Your task to perform on an android device: turn off location history Image 0: 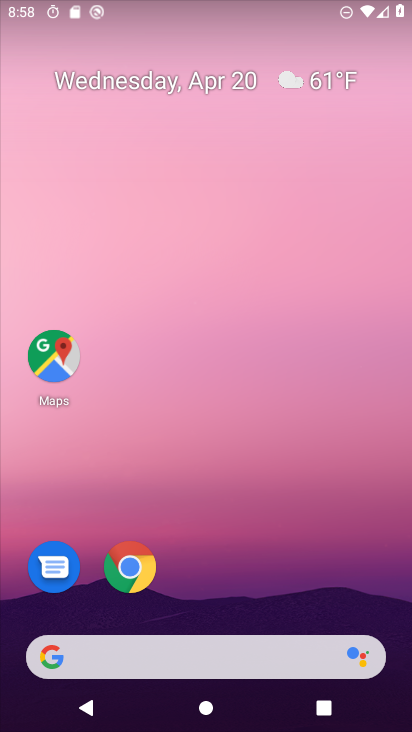
Step 0: drag from (349, 593) to (364, 552)
Your task to perform on an android device: turn off location history Image 1: 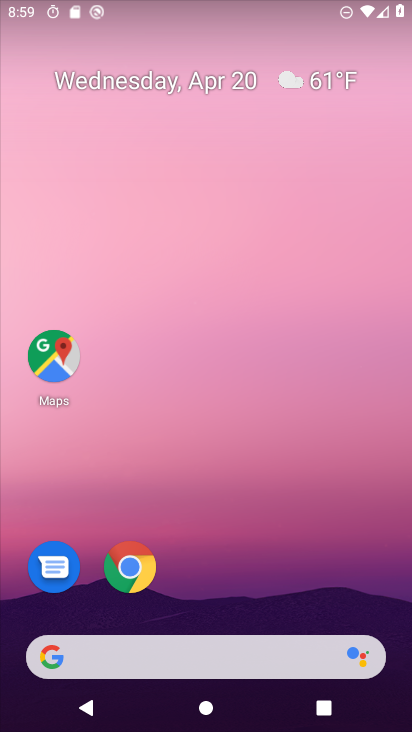
Step 1: click (37, 355)
Your task to perform on an android device: turn off location history Image 2: 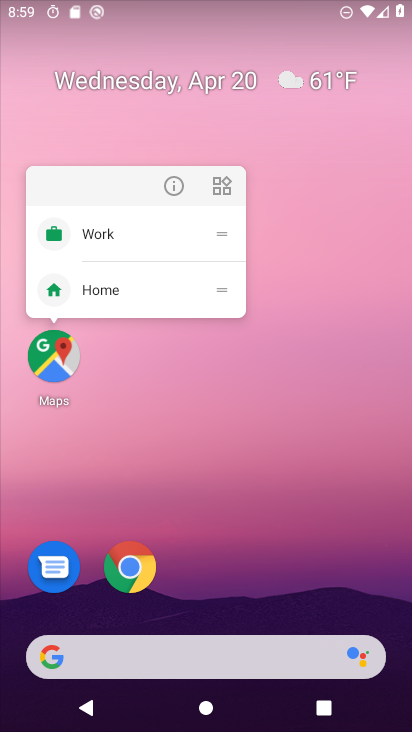
Step 2: click (37, 355)
Your task to perform on an android device: turn off location history Image 3: 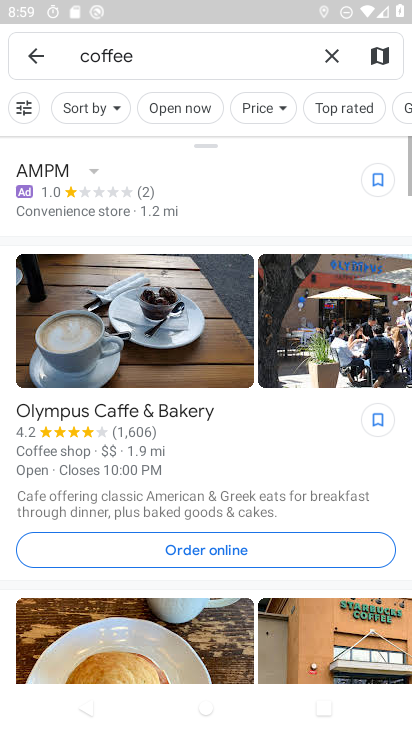
Step 3: click (326, 57)
Your task to perform on an android device: turn off location history Image 4: 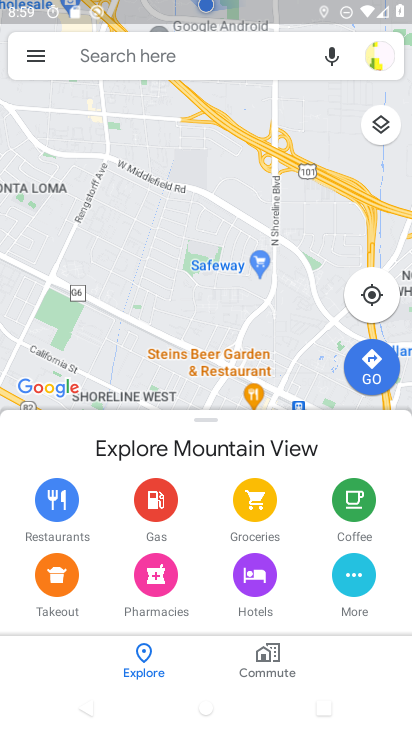
Step 4: click (41, 62)
Your task to perform on an android device: turn off location history Image 5: 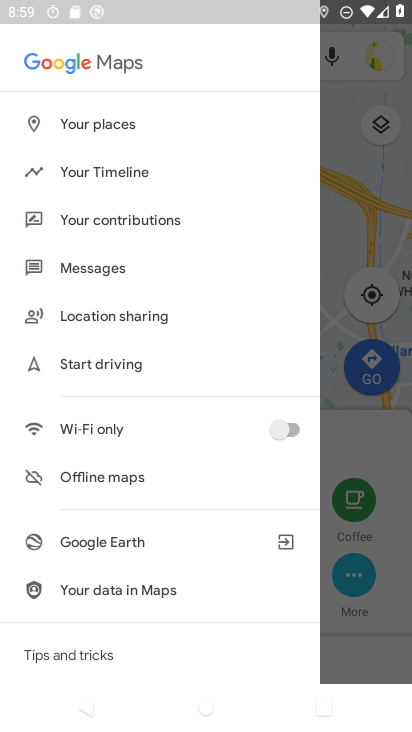
Step 5: click (128, 179)
Your task to perform on an android device: turn off location history Image 6: 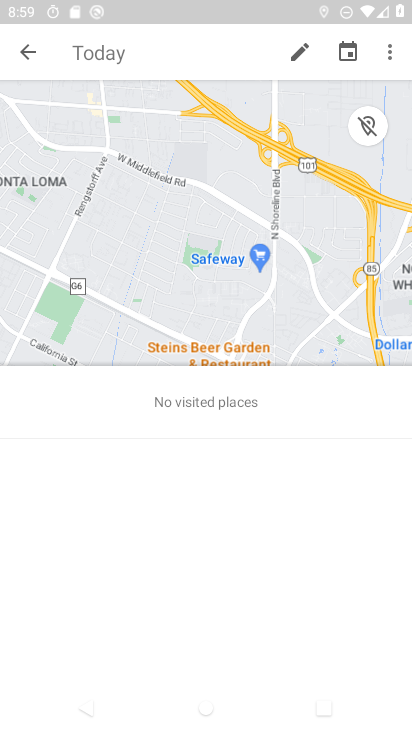
Step 6: click (384, 55)
Your task to perform on an android device: turn off location history Image 7: 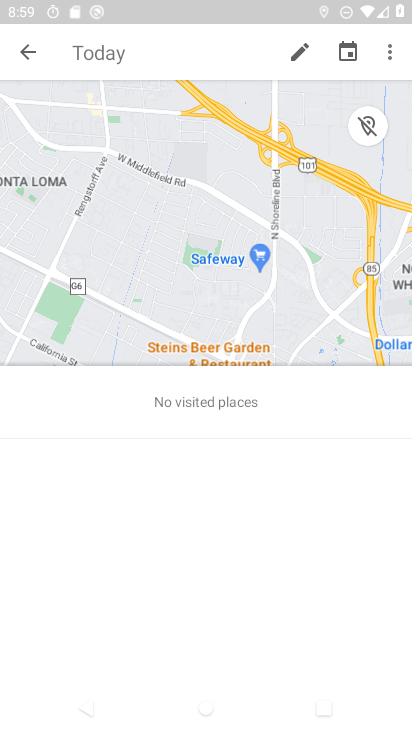
Step 7: click (384, 55)
Your task to perform on an android device: turn off location history Image 8: 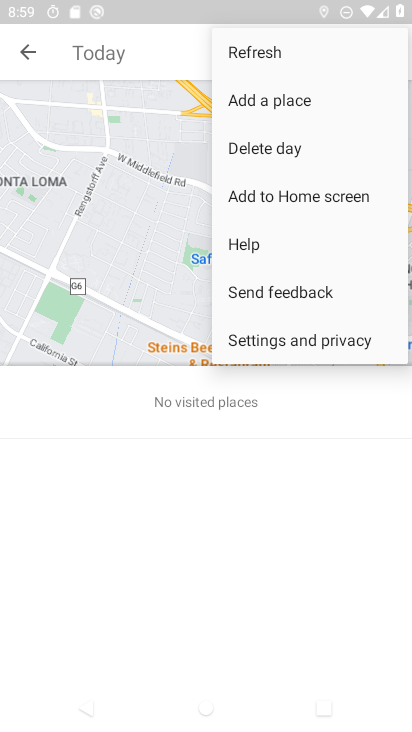
Step 8: click (272, 356)
Your task to perform on an android device: turn off location history Image 9: 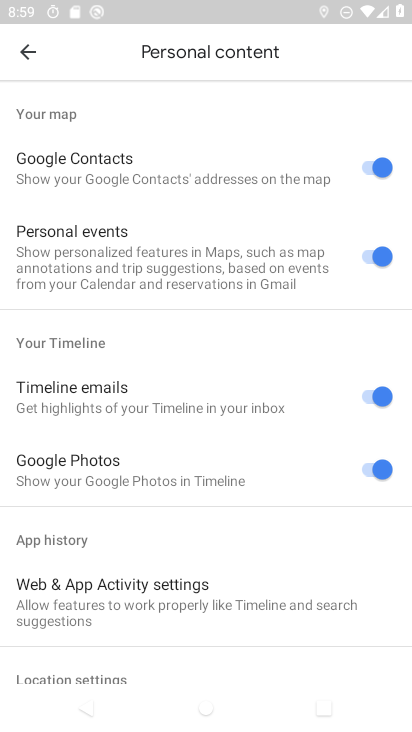
Step 9: drag from (211, 542) to (213, 269)
Your task to perform on an android device: turn off location history Image 10: 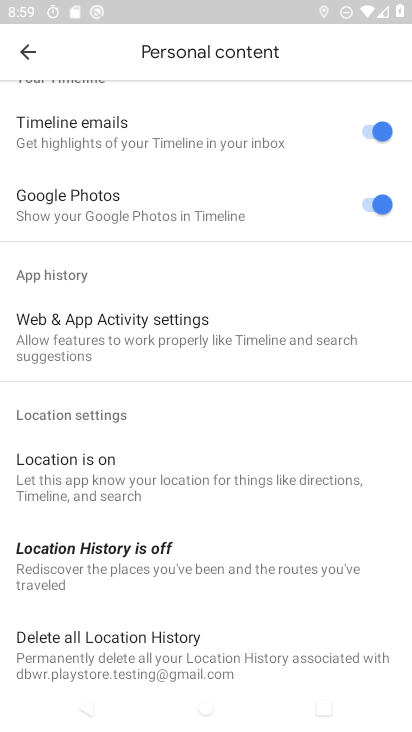
Step 10: click (121, 559)
Your task to perform on an android device: turn off location history Image 11: 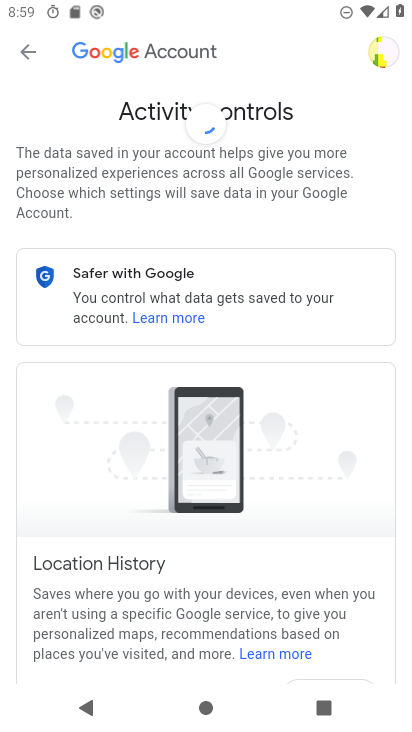
Step 11: task complete